Your task to perform on an android device: Go to Wikipedia Image 0: 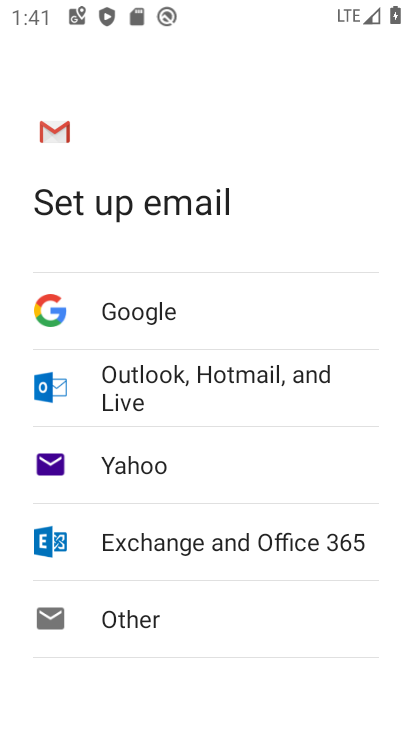
Step 0: press home button
Your task to perform on an android device: Go to Wikipedia Image 1: 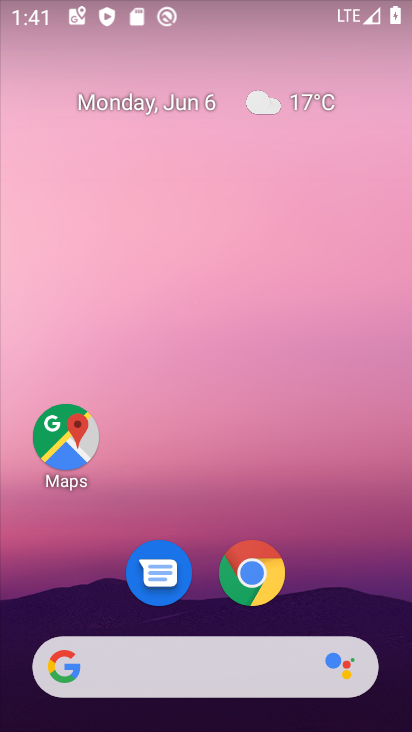
Step 1: drag from (365, 585) to (337, 152)
Your task to perform on an android device: Go to Wikipedia Image 2: 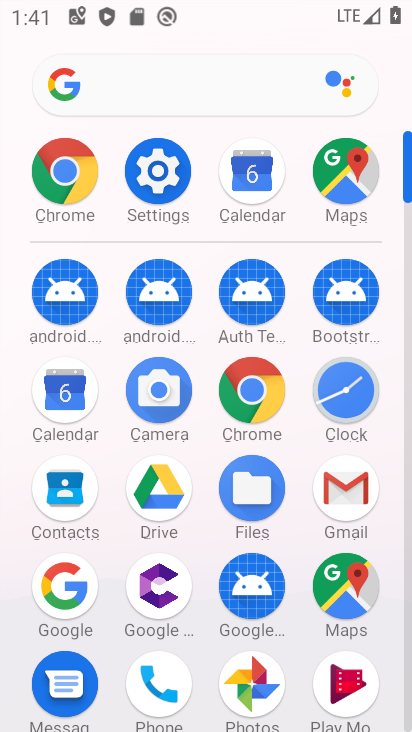
Step 2: click (269, 387)
Your task to perform on an android device: Go to Wikipedia Image 3: 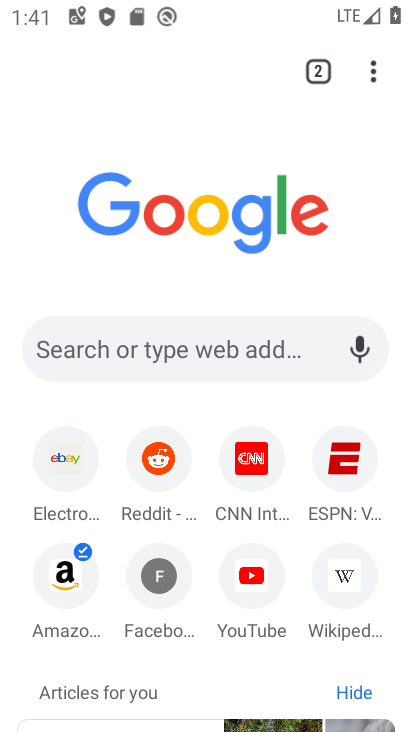
Step 3: click (342, 591)
Your task to perform on an android device: Go to Wikipedia Image 4: 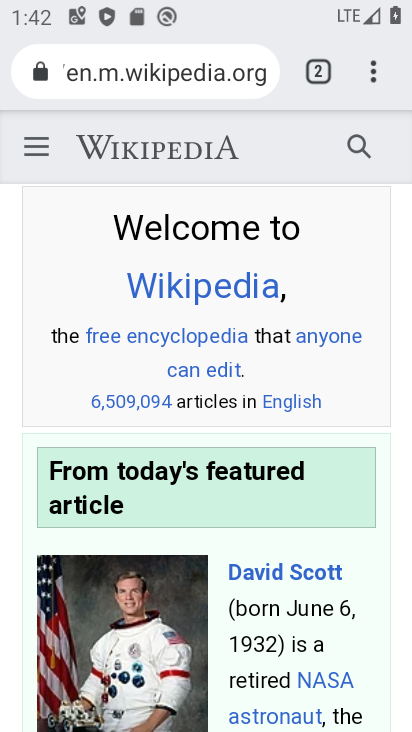
Step 4: task complete